Your task to perform on an android device: Open network settings Image 0: 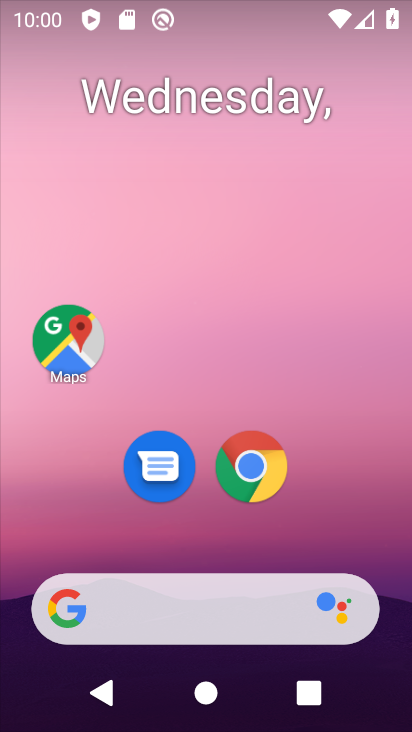
Step 0: drag from (240, 723) to (240, 132)
Your task to perform on an android device: Open network settings Image 1: 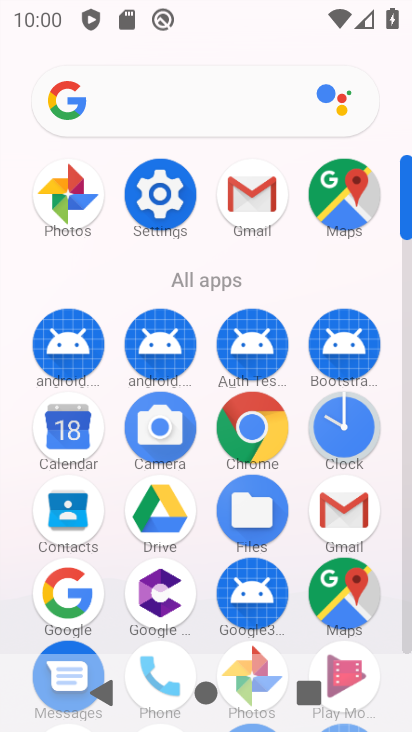
Step 1: click (156, 201)
Your task to perform on an android device: Open network settings Image 2: 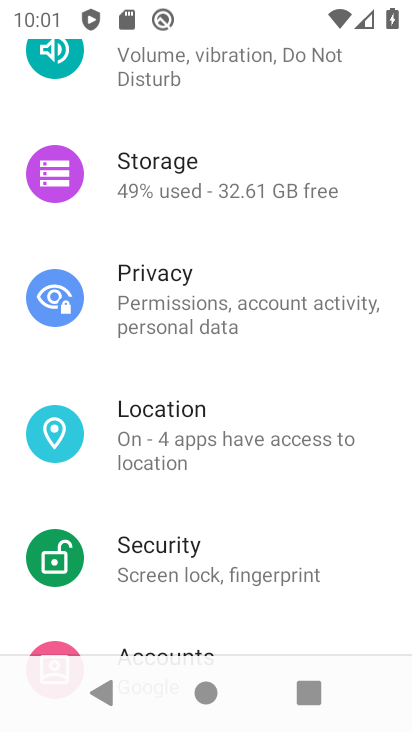
Step 2: drag from (210, 159) to (216, 443)
Your task to perform on an android device: Open network settings Image 3: 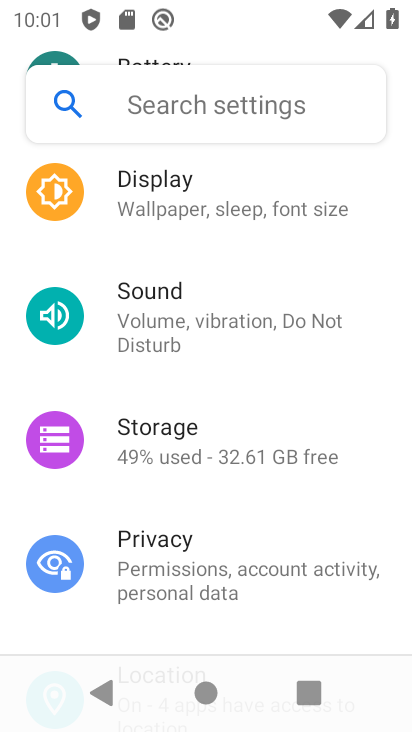
Step 3: drag from (211, 166) to (203, 486)
Your task to perform on an android device: Open network settings Image 4: 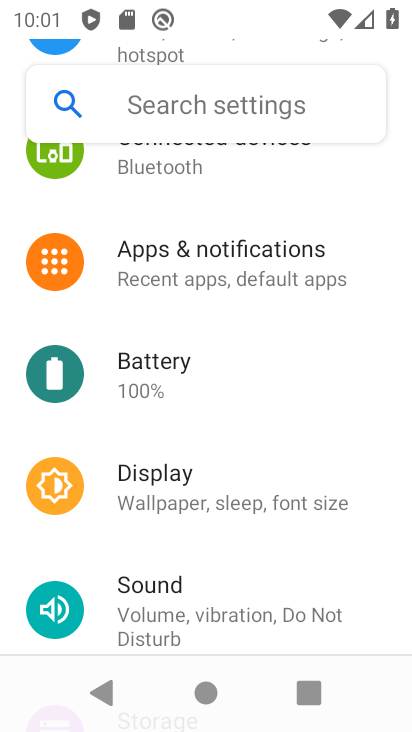
Step 4: drag from (208, 199) to (205, 482)
Your task to perform on an android device: Open network settings Image 5: 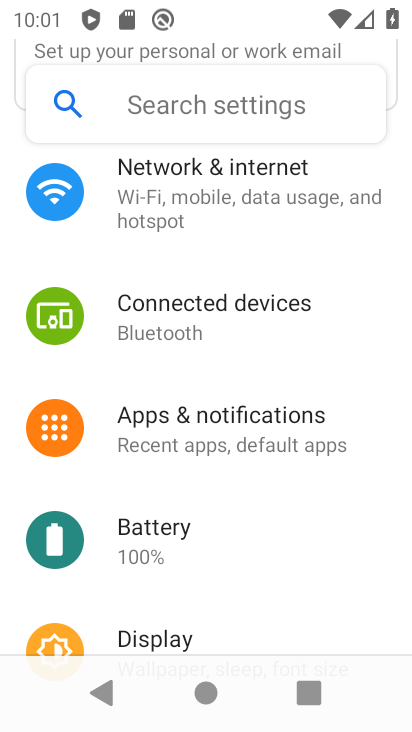
Step 5: click (170, 181)
Your task to perform on an android device: Open network settings Image 6: 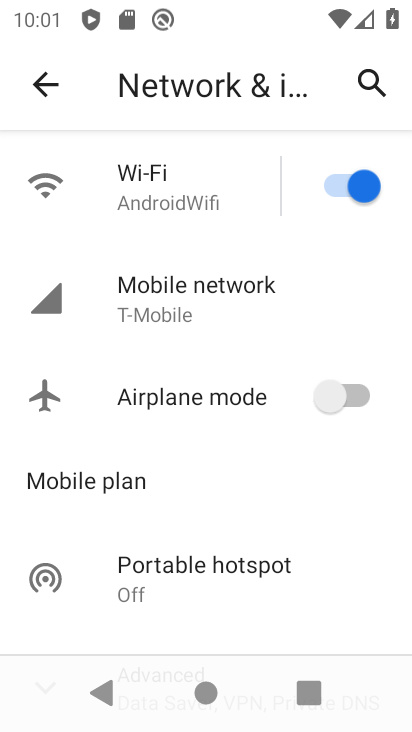
Step 6: click (207, 293)
Your task to perform on an android device: Open network settings Image 7: 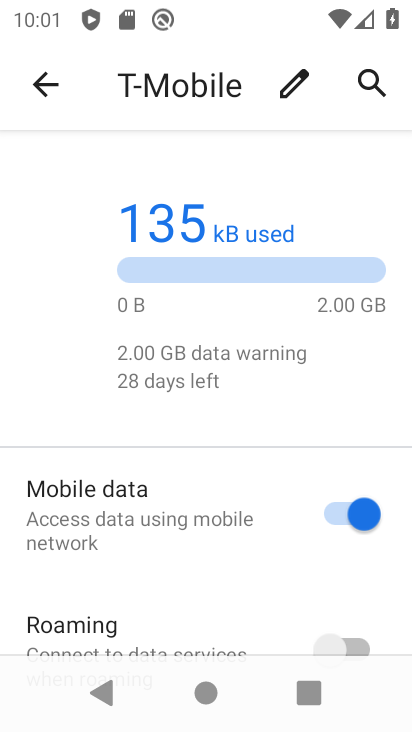
Step 7: task complete